Your task to perform on an android device: open app "Indeed Job Search" (install if not already installed) and enter user name: "quixotic@inbox.com" and password: "microphones" Image 0: 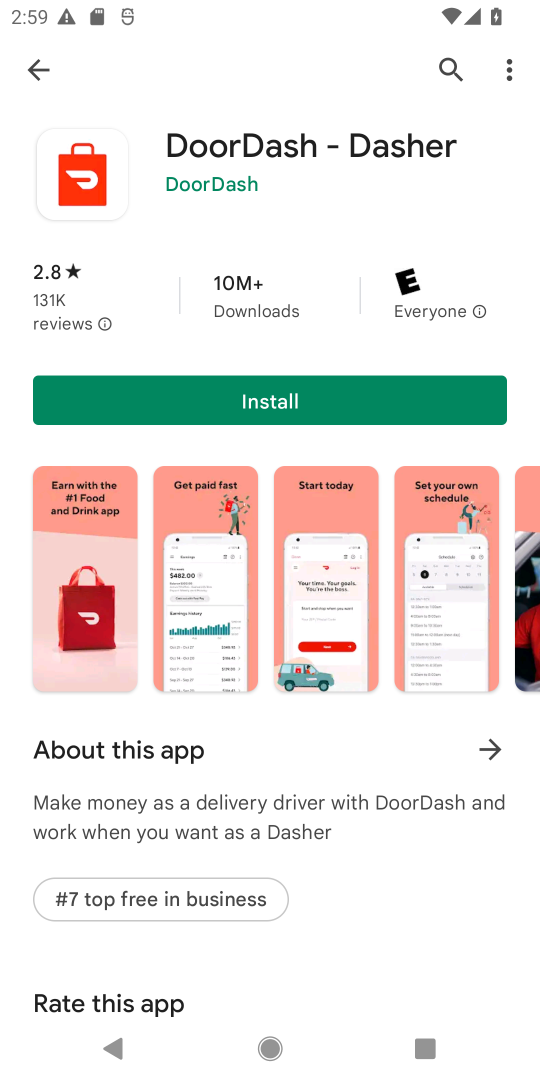
Step 0: press home button
Your task to perform on an android device: open app "Indeed Job Search" (install if not already installed) and enter user name: "quixotic@inbox.com" and password: "microphones" Image 1: 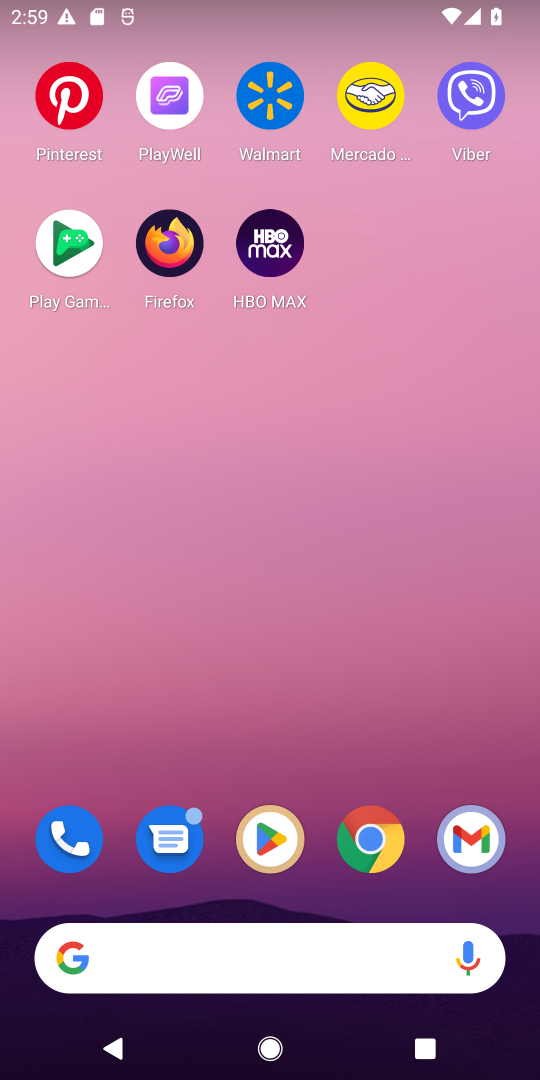
Step 1: click (250, 839)
Your task to perform on an android device: open app "Indeed Job Search" (install if not already installed) and enter user name: "quixotic@inbox.com" and password: "microphones" Image 2: 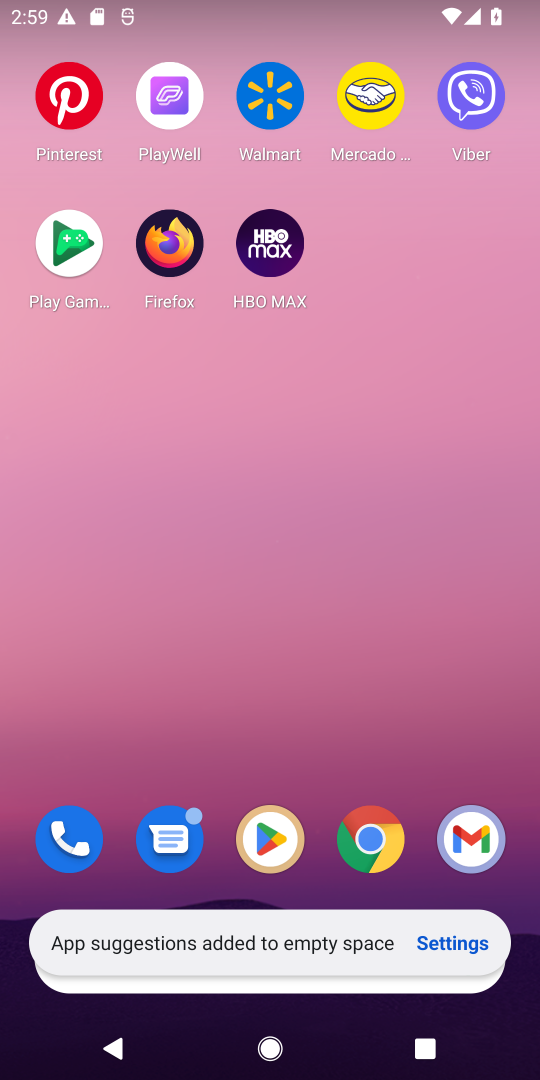
Step 2: click (267, 815)
Your task to perform on an android device: open app "Indeed Job Search" (install if not already installed) and enter user name: "quixotic@inbox.com" and password: "microphones" Image 3: 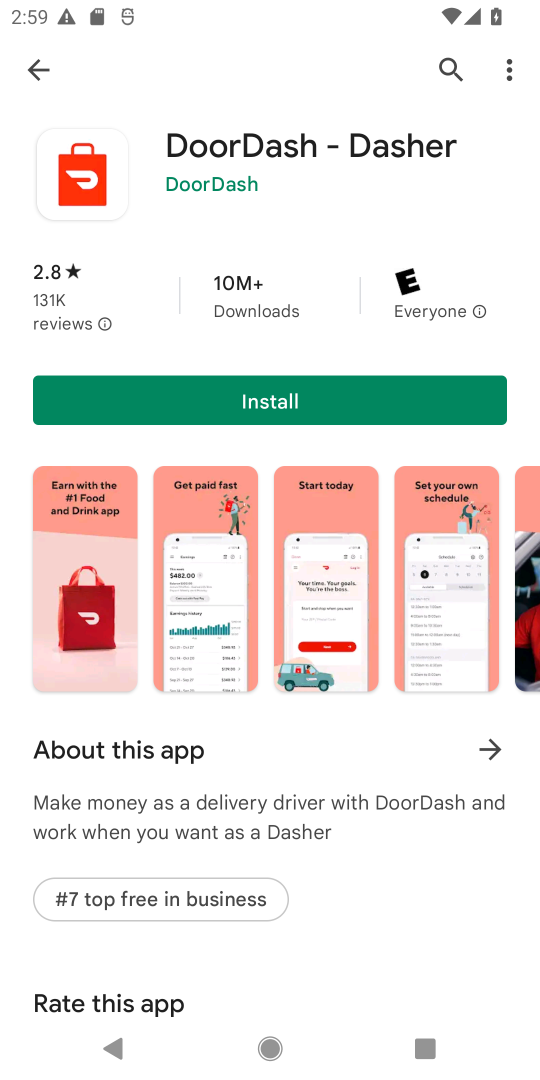
Step 3: click (40, 48)
Your task to perform on an android device: open app "Indeed Job Search" (install if not already installed) and enter user name: "quixotic@inbox.com" and password: "microphones" Image 4: 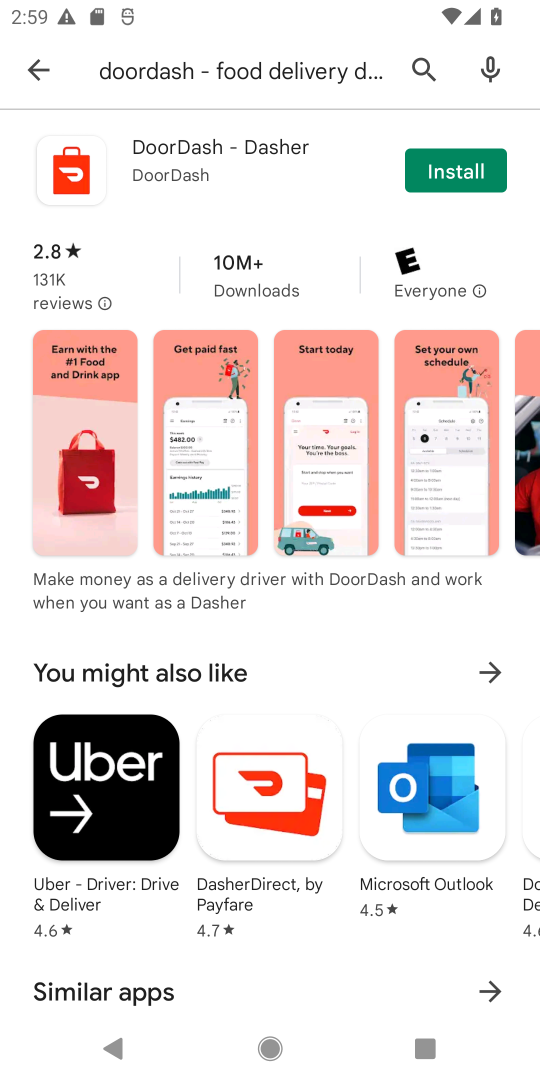
Step 4: click (27, 90)
Your task to perform on an android device: open app "Indeed Job Search" (install if not already installed) and enter user name: "quixotic@inbox.com" and password: "microphones" Image 5: 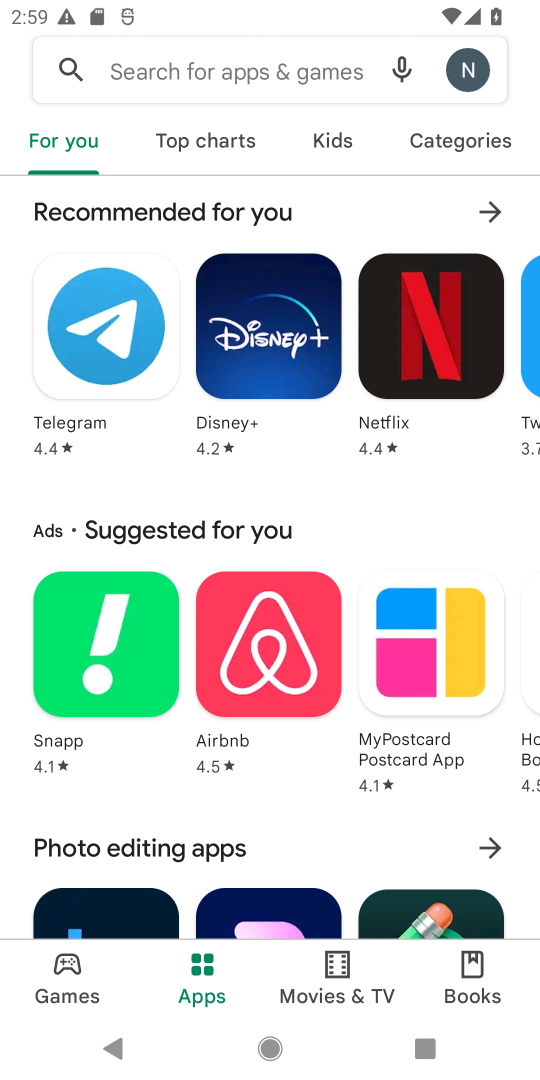
Step 5: click (125, 66)
Your task to perform on an android device: open app "Indeed Job Search" (install if not already installed) and enter user name: "quixotic@inbox.com" and password: "microphones" Image 6: 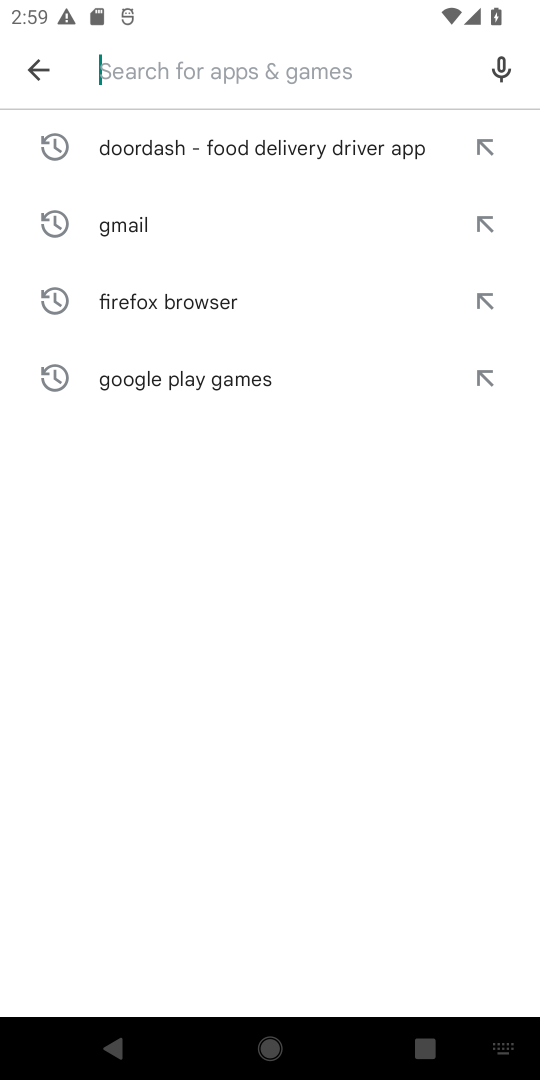
Step 6: type "Indeed Job Search"
Your task to perform on an android device: open app "Indeed Job Search" (install if not already installed) and enter user name: "quixotic@inbox.com" and password: "microphones" Image 7: 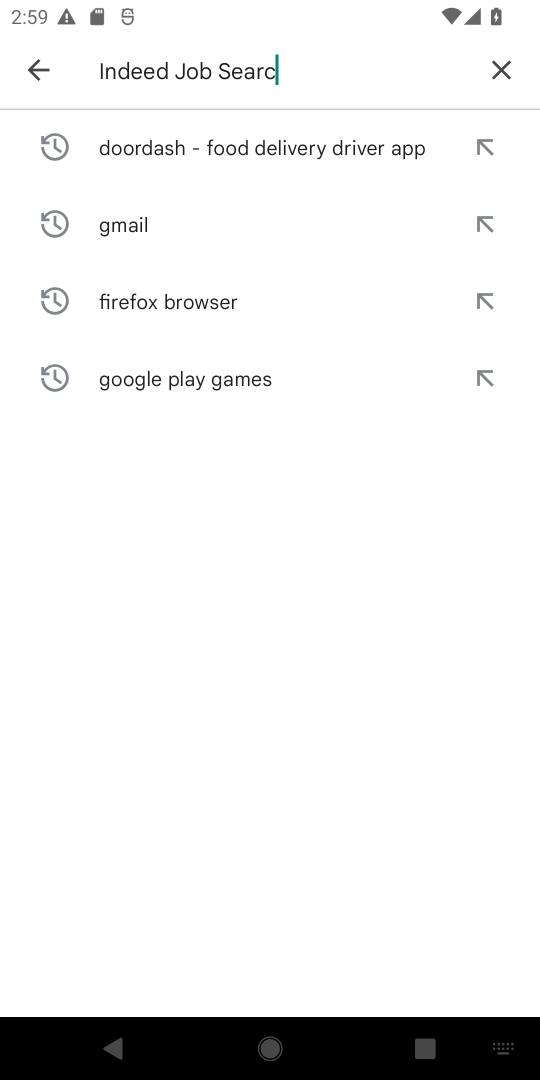
Step 7: type ""
Your task to perform on an android device: open app "Indeed Job Search" (install if not already installed) and enter user name: "quixotic@inbox.com" and password: "microphones" Image 8: 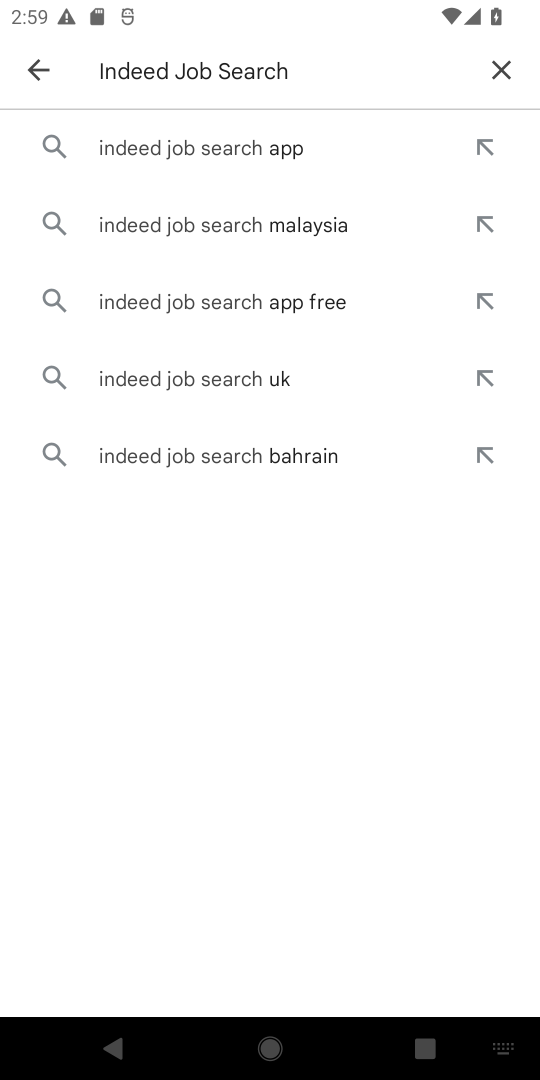
Step 8: click (134, 150)
Your task to perform on an android device: open app "Indeed Job Search" (install if not already installed) and enter user name: "quixotic@inbox.com" and password: "microphones" Image 9: 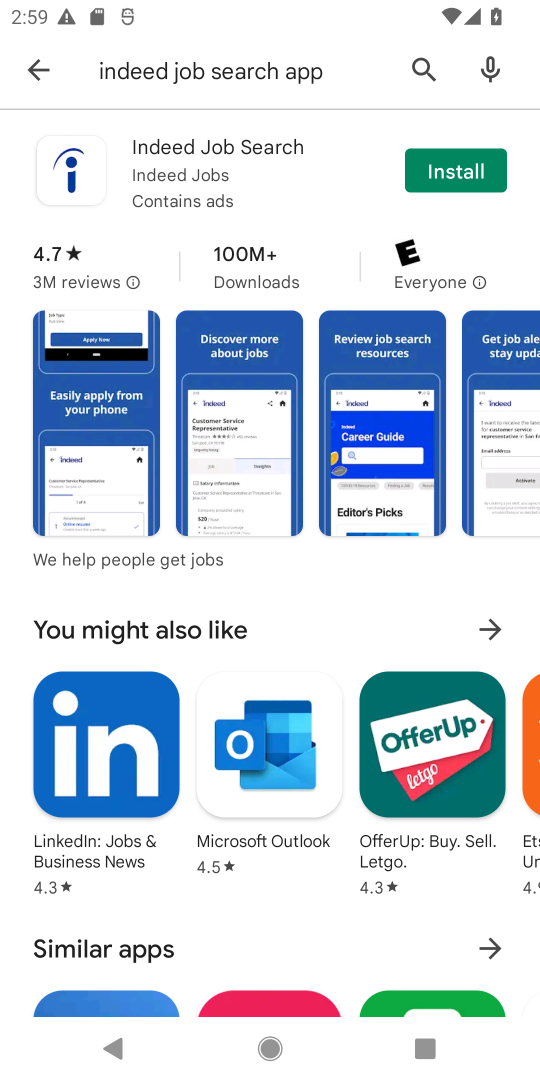
Step 9: click (417, 174)
Your task to perform on an android device: open app "Indeed Job Search" (install if not already installed) and enter user name: "quixotic@inbox.com" and password: "microphones" Image 10: 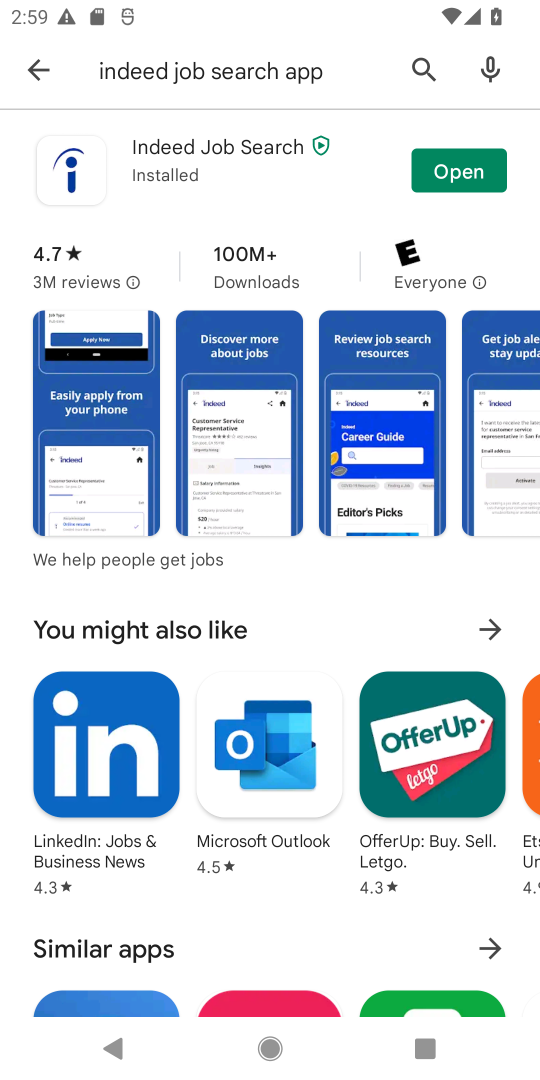
Step 10: click (481, 160)
Your task to perform on an android device: open app "Indeed Job Search" (install if not already installed) and enter user name: "quixotic@inbox.com" and password: "microphones" Image 11: 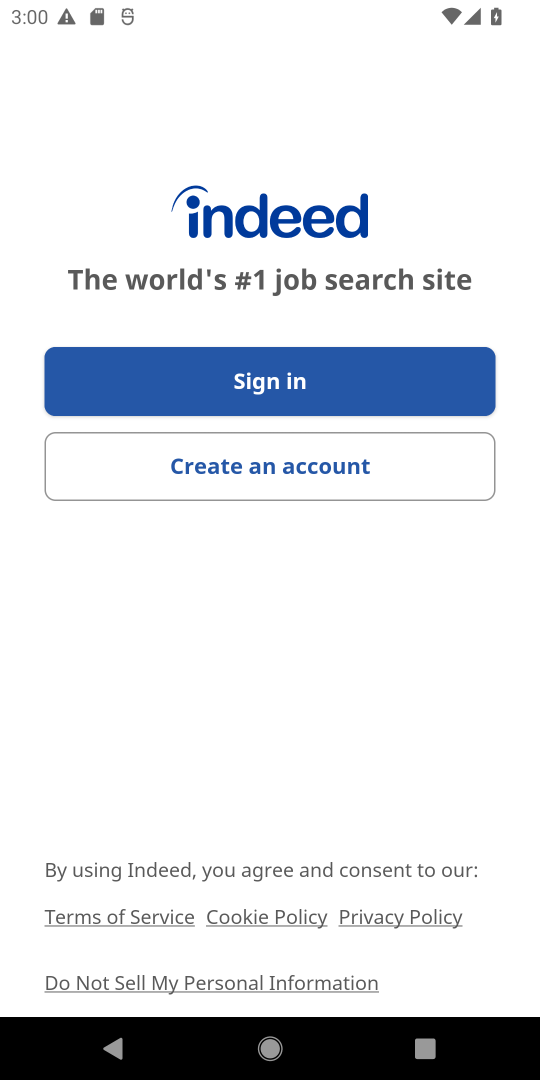
Step 11: click (238, 360)
Your task to perform on an android device: open app "Indeed Job Search" (install if not already installed) and enter user name: "quixotic@inbox.com" and password: "microphones" Image 12: 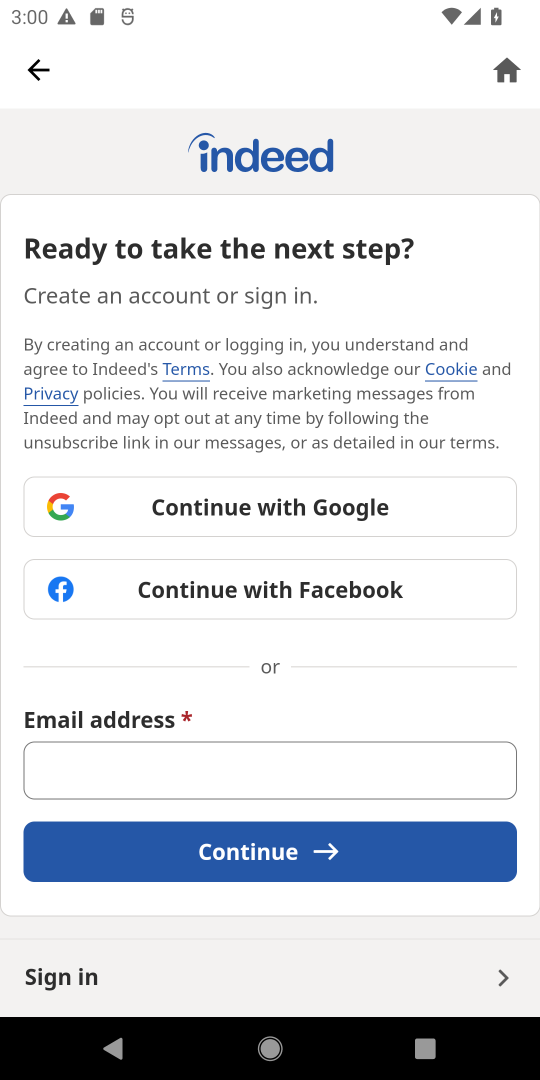
Step 12: click (127, 759)
Your task to perform on an android device: open app "Indeed Job Search" (install if not already installed) and enter user name: "quixotic@inbox.com" and password: "microphones" Image 13: 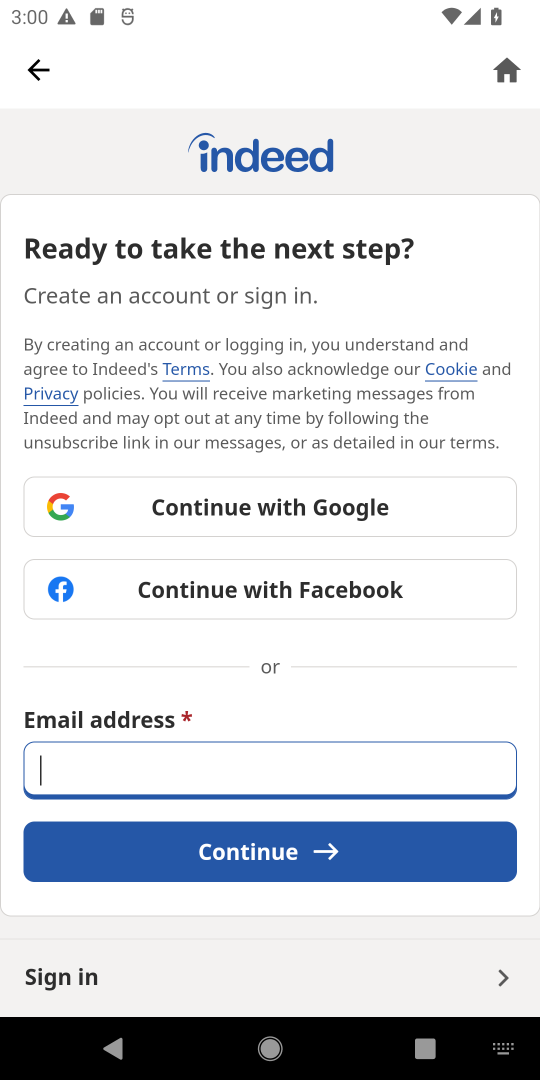
Step 13: type "quixotic@inbox.com"
Your task to perform on an android device: open app "Indeed Job Search" (install if not already installed) and enter user name: "quixotic@inbox.com" and password: "microphones" Image 14: 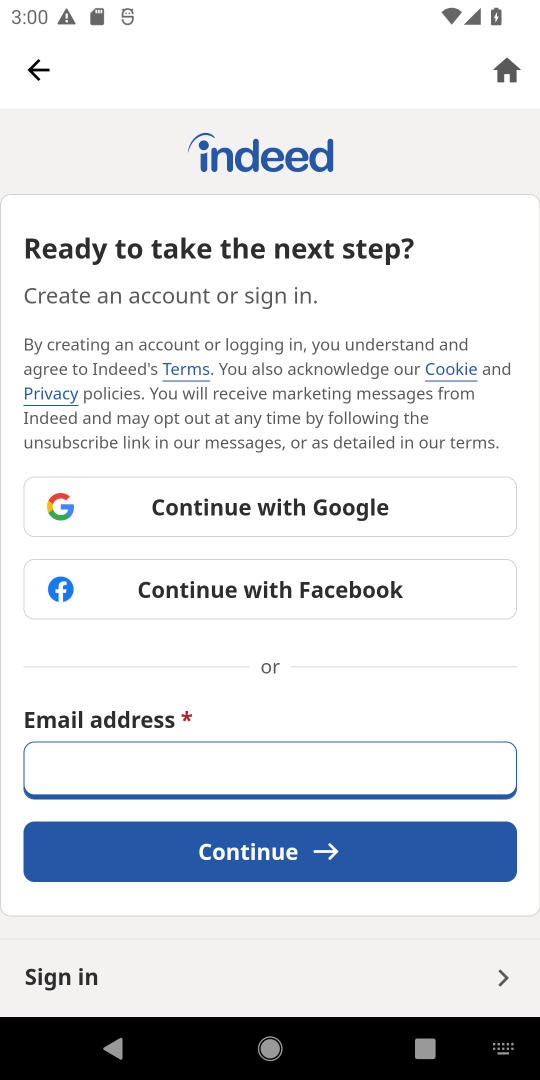
Step 14: type ""
Your task to perform on an android device: open app "Indeed Job Search" (install if not already installed) and enter user name: "quixotic@inbox.com" and password: "microphones" Image 15: 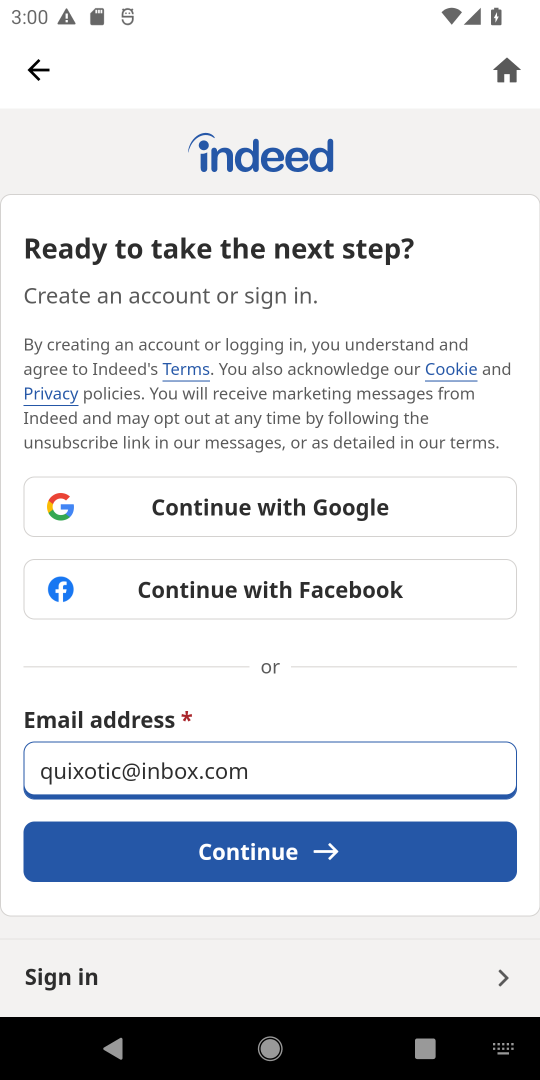
Step 15: click (333, 864)
Your task to perform on an android device: open app "Indeed Job Search" (install if not already installed) and enter user name: "quixotic@inbox.com" and password: "microphones" Image 16: 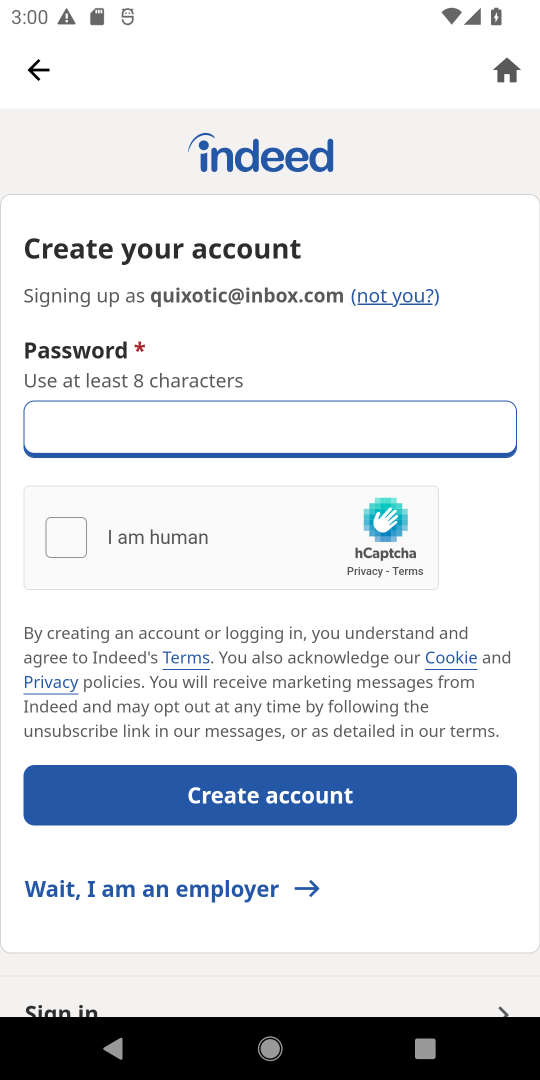
Step 16: type "microphones"
Your task to perform on an android device: open app "Indeed Job Search" (install if not already installed) and enter user name: "quixotic@inbox.com" and password: "microphones" Image 17: 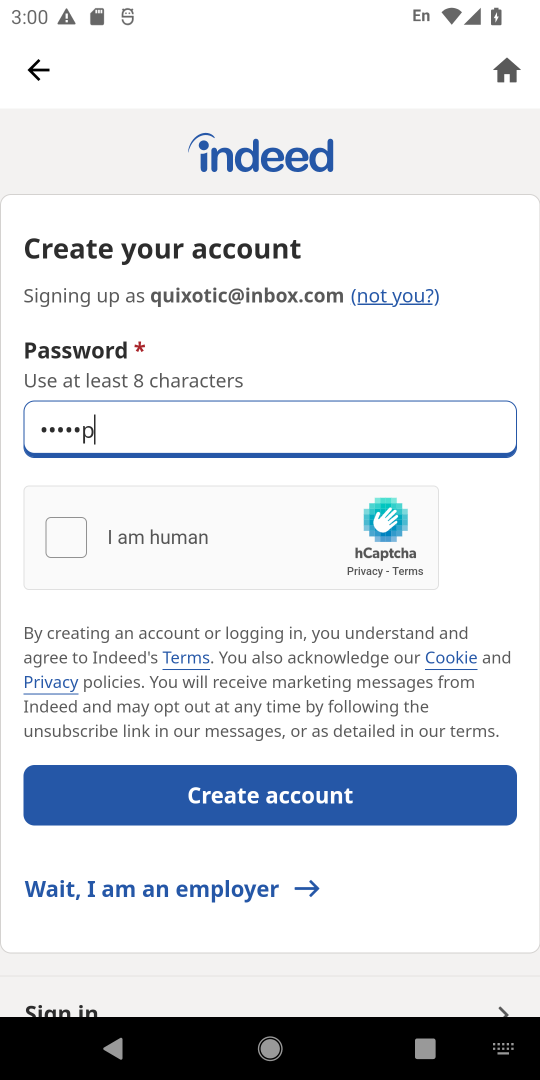
Step 17: type ""
Your task to perform on an android device: open app "Indeed Job Search" (install if not already installed) and enter user name: "quixotic@inbox.com" and password: "microphones" Image 18: 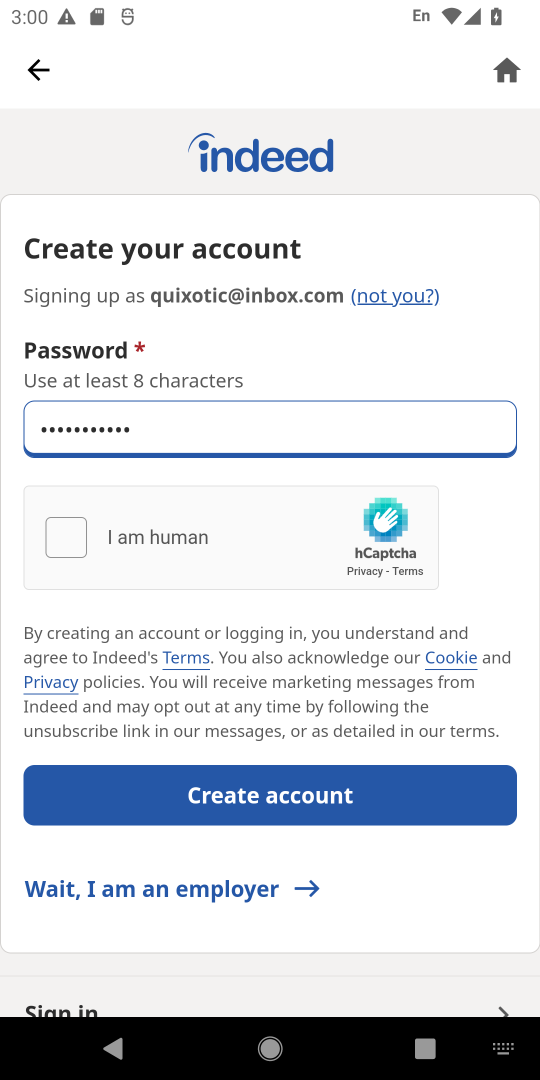
Step 18: click (182, 771)
Your task to perform on an android device: open app "Indeed Job Search" (install if not already installed) and enter user name: "quixotic@inbox.com" and password: "microphones" Image 19: 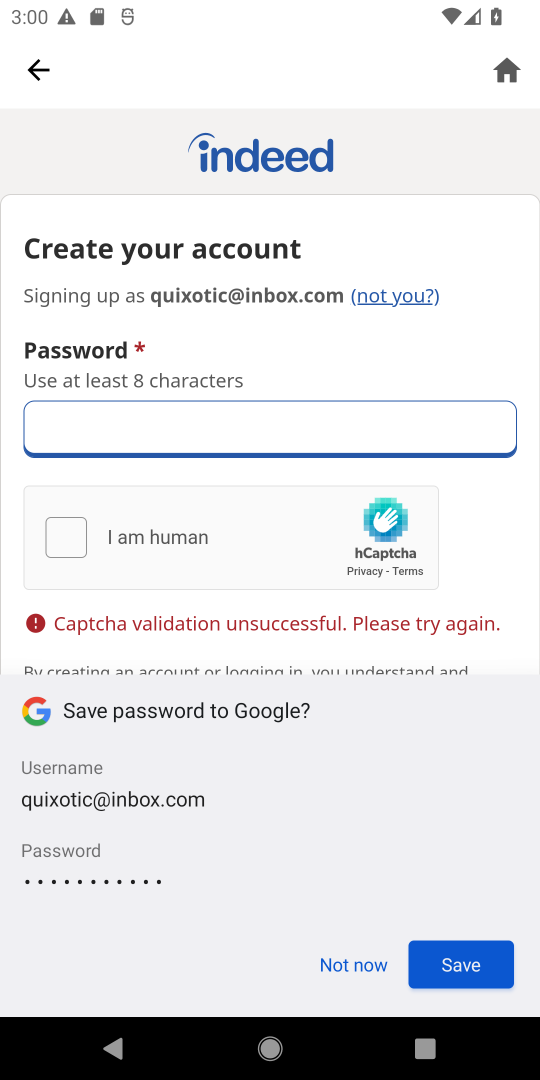
Step 19: task complete